Your task to perform on an android device: toggle translation in the chrome app Image 0: 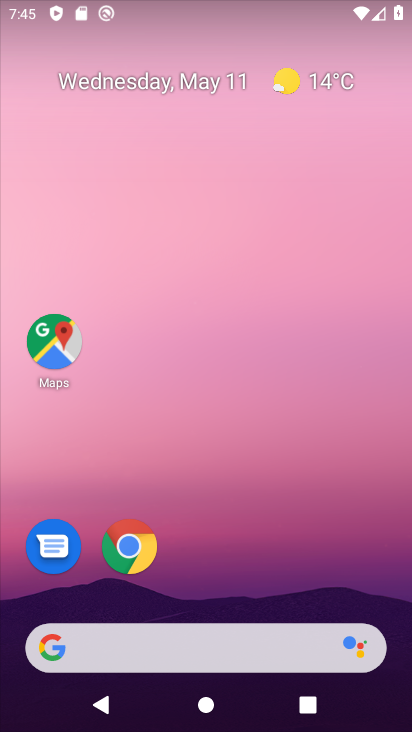
Step 0: click (130, 542)
Your task to perform on an android device: toggle translation in the chrome app Image 1: 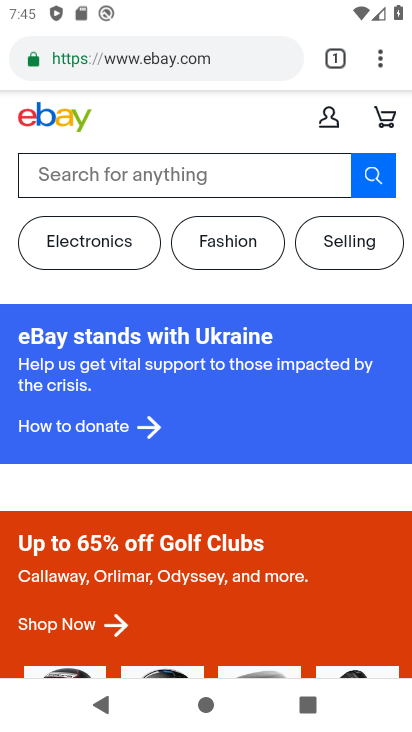
Step 1: click (377, 54)
Your task to perform on an android device: toggle translation in the chrome app Image 2: 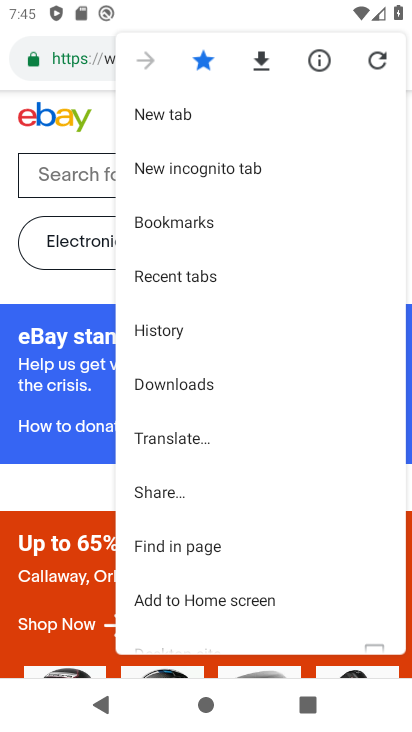
Step 2: drag from (203, 580) to (272, 299)
Your task to perform on an android device: toggle translation in the chrome app Image 3: 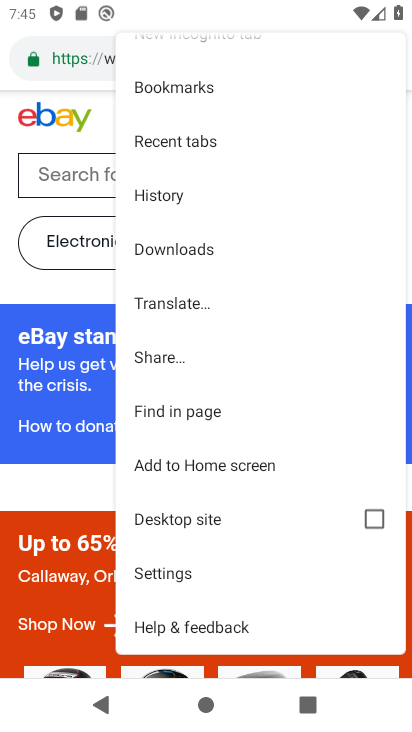
Step 3: click (204, 570)
Your task to perform on an android device: toggle translation in the chrome app Image 4: 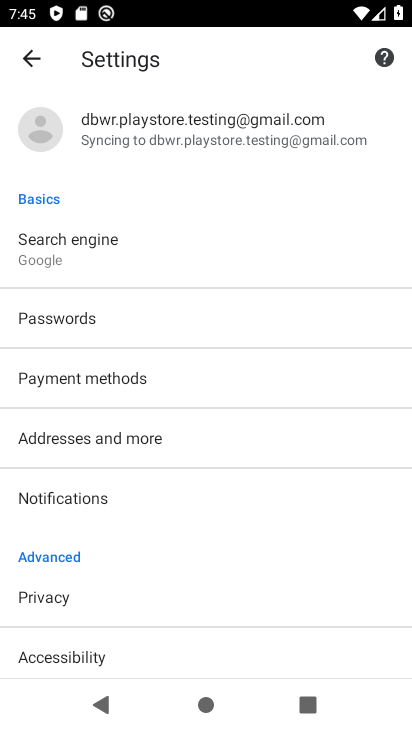
Step 4: drag from (258, 563) to (339, 222)
Your task to perform on an android device: toggle translation in the chrome app Image 5: 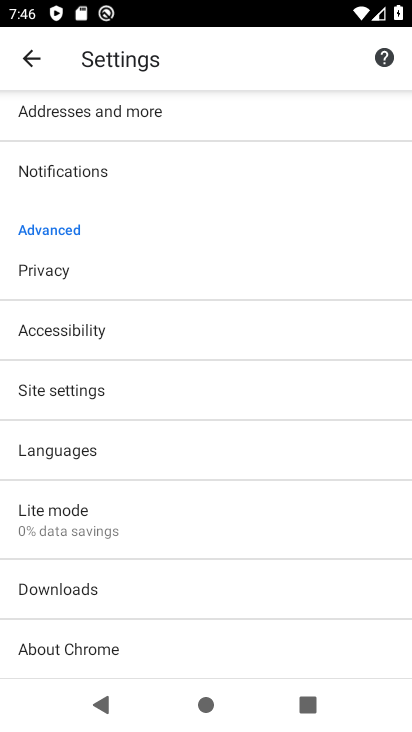
Step 5: click (69, 447)
Your task to perform on an android device: toggle translation in the chrome app Image 6: 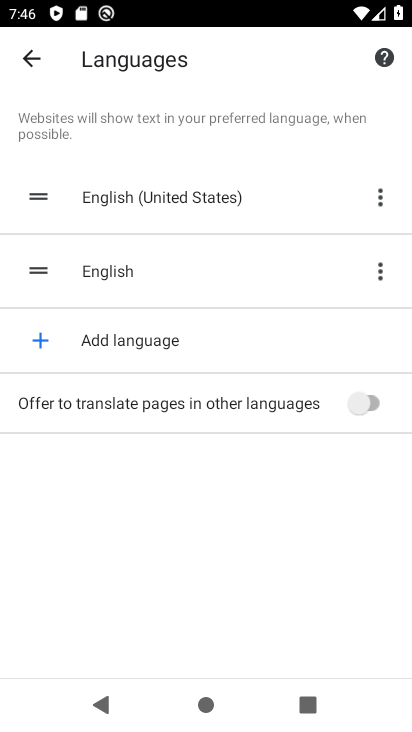
Step 6: click (365, 387)
Your task to perform on an android device: toggle translation in the chrome app Image 7: 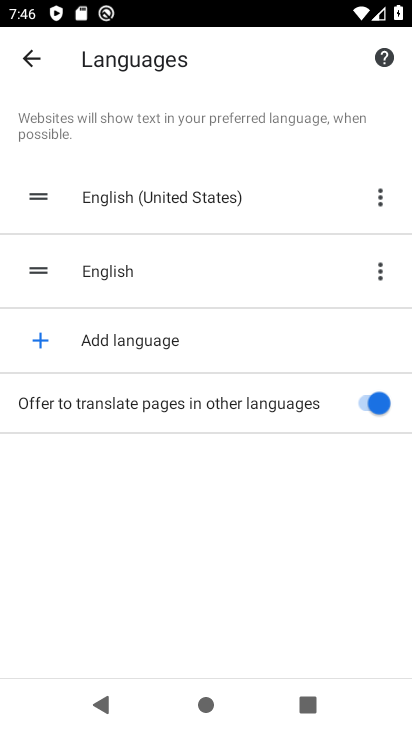
Step 7: task complete